Your task to perform on an android device: set the timer Image 0: 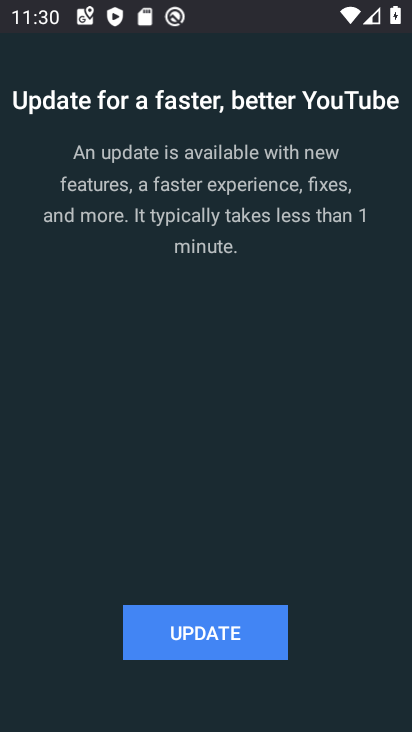
Step 0: press home button
Your task to perform on an android device: set the timer Image 1: 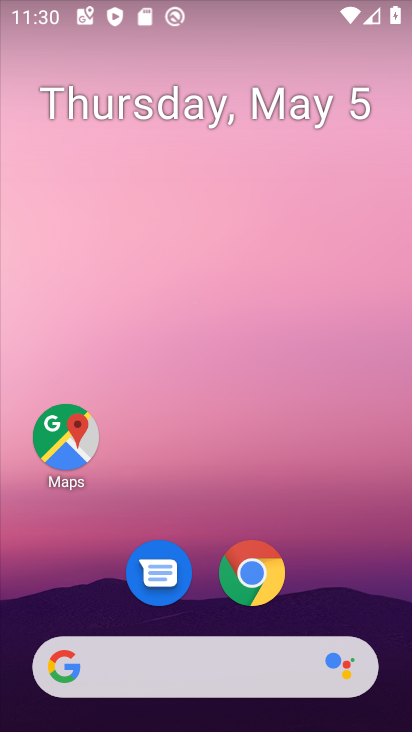
Step 1: drag from (321, 531) to (300, 241)
Your task to perform on an android device: set the timer Image 2: 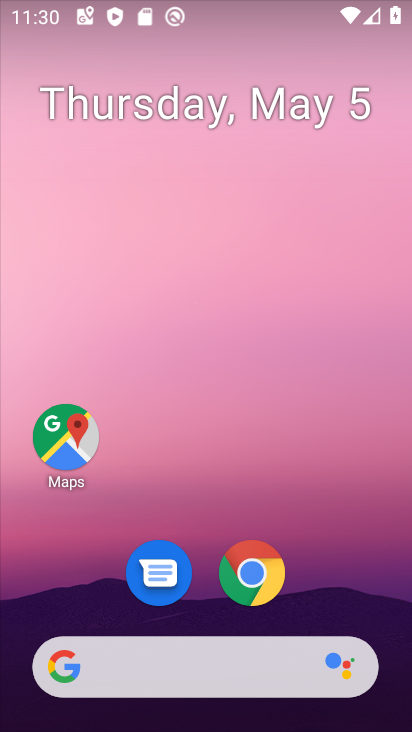
Step 2: drag from (347, 538) to (321, 183)
Your task to perform on an android device: set the timer Image 3: 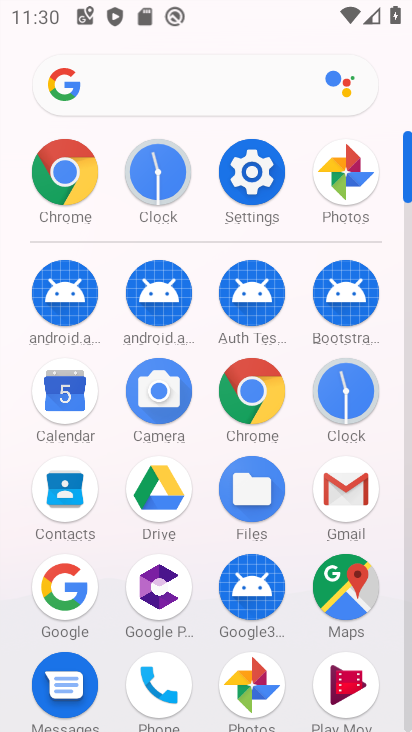
Step 3: click (351, 391)
Your task to perform on an android device: set the timer Image 4: 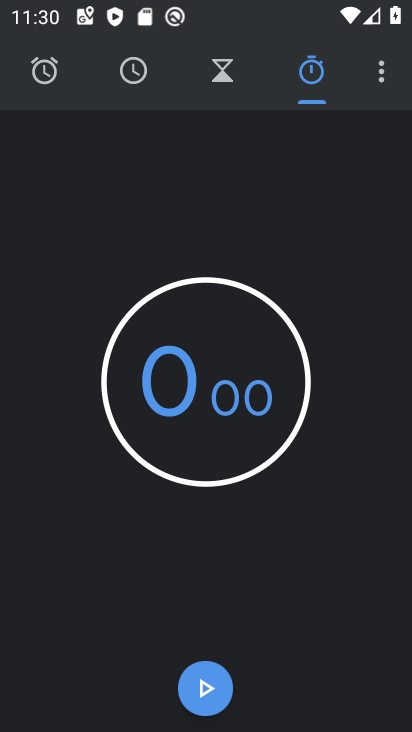
Step 4: click (231, 72)
Your task to perform on an android device: set the timer Image 5: 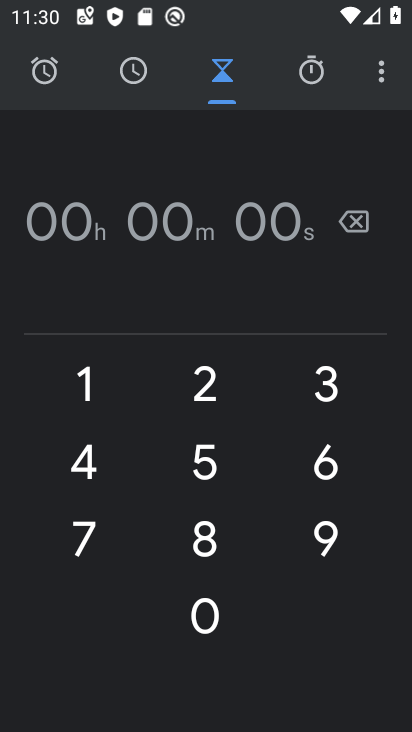
Step 5: click (254, 205)
Your task to perform on an android device: set the timer Image 6: 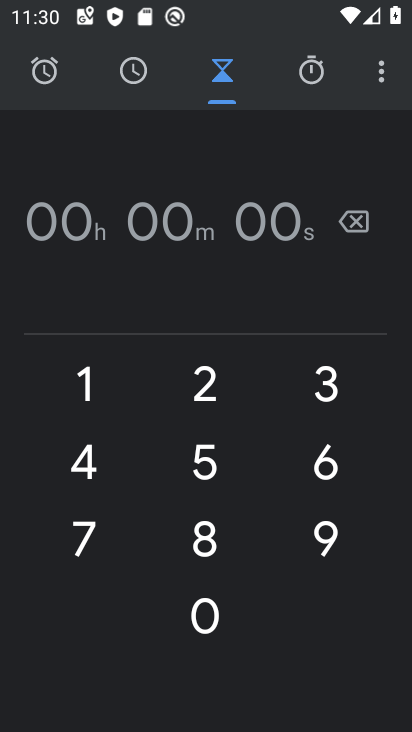
Step 6: type "09"
Your task to perform on an android device: set the timer Image 7: 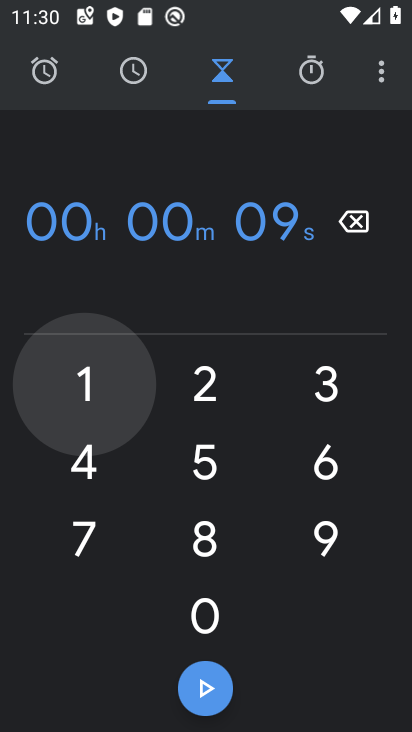
Step 7: type "09"
Your task to perform on an android device: set the timer Image 8: 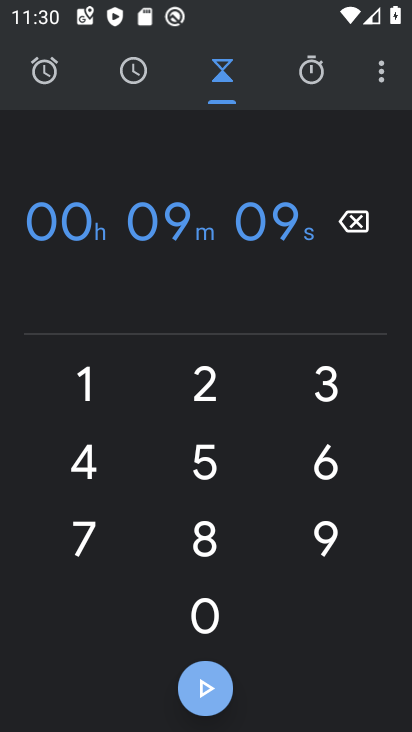
Step 8: type "09"
Your task to perform on an android device: set the timer Image 9: 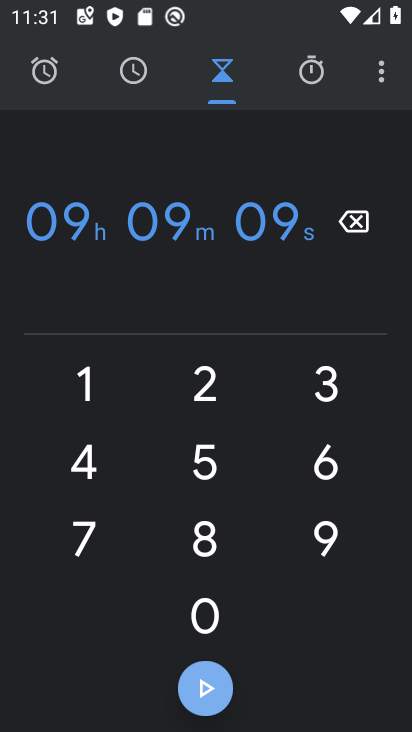
Step 9: click (207, 683)
Your task to perform on an android device: set the timer Image 10: 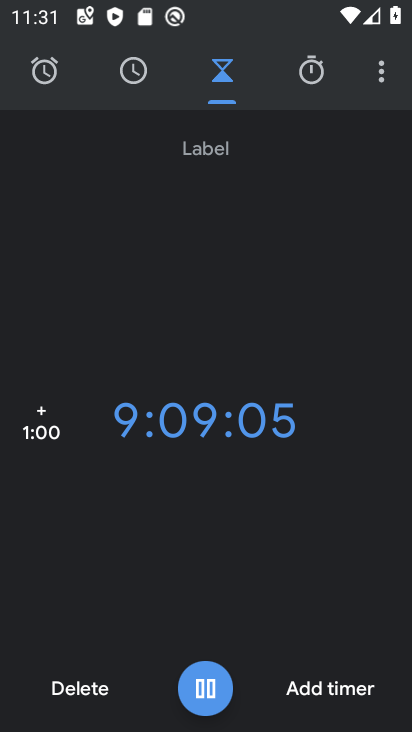
Step 10: task complete